Your task to perform on an android device: snooze an email in the gmail app Image 0: 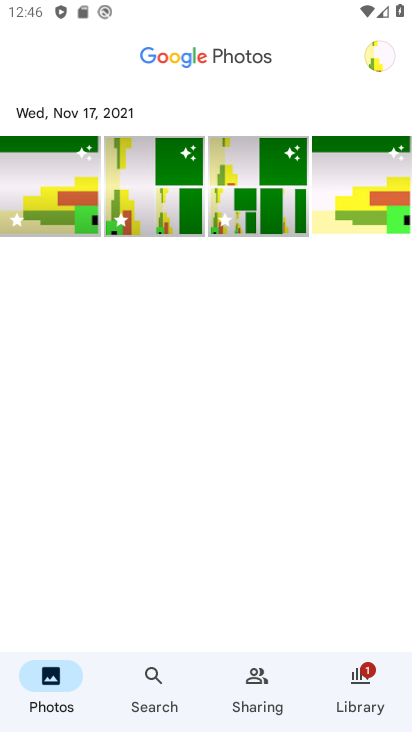
Step 0: press home button
Your task to perform on an android device: snooze an email in the gmail app Image 1: 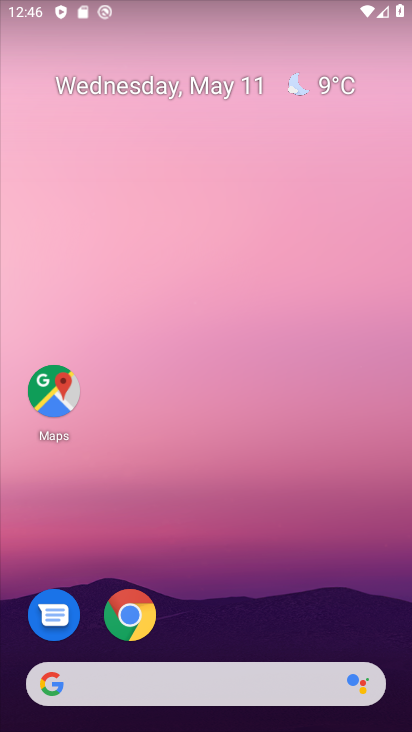
Step 1: drag from (265, 636) to (218, 240)
Your task to perform on an android device: snooze an email in the gmail app Image 2: 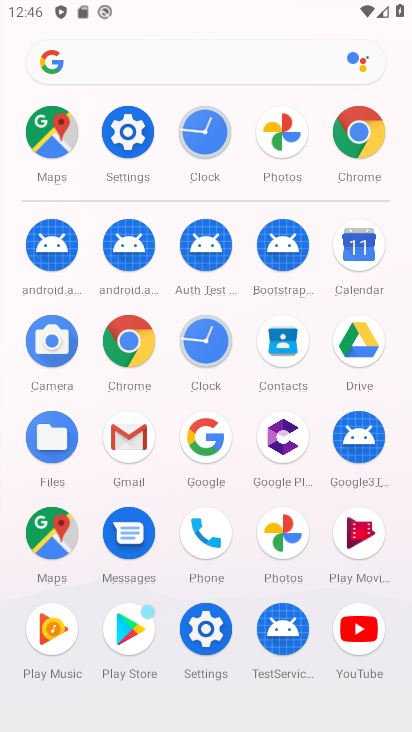
Step 2: click (143, 451)
Your task to perform on an android device: snooze an email in the gmail app Image 3: 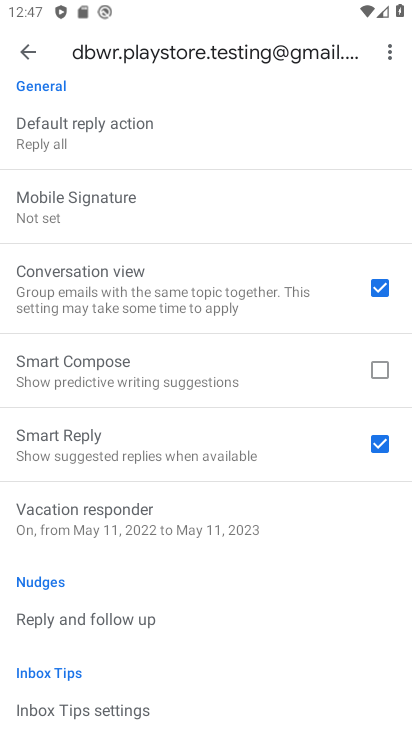
Step 3: click (22, 45)
Your task to perform on an android device: snooze an email in the gmail app Image 4: 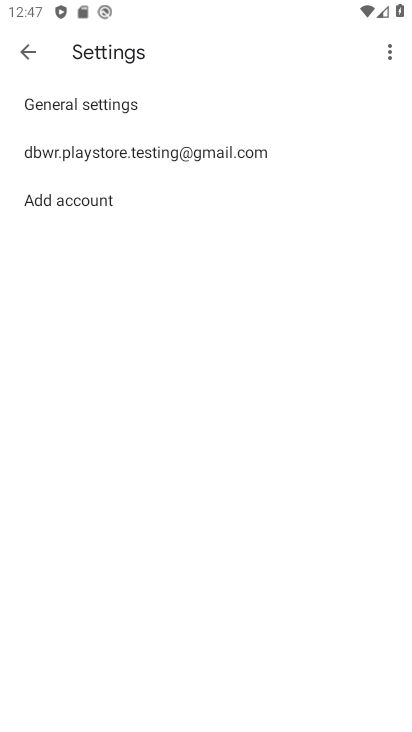
Step 4: click (22, 45)
Your task to perform on an android device: snooze an email in the gmail app Image 5: 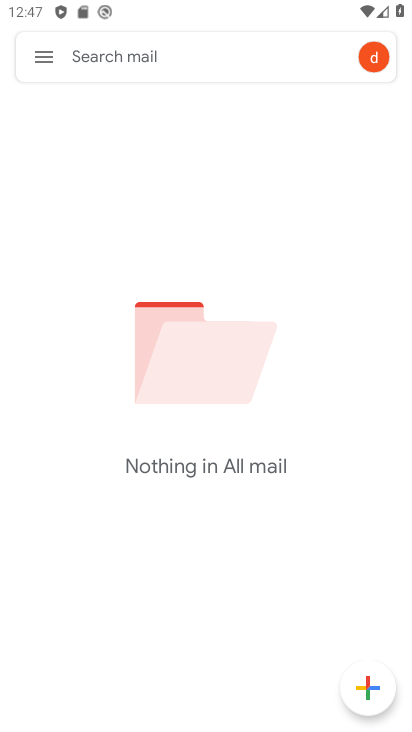
Step 5: click (46, 53)
Your task to perform on an android device: snooze an email in the gmail app Image 6: 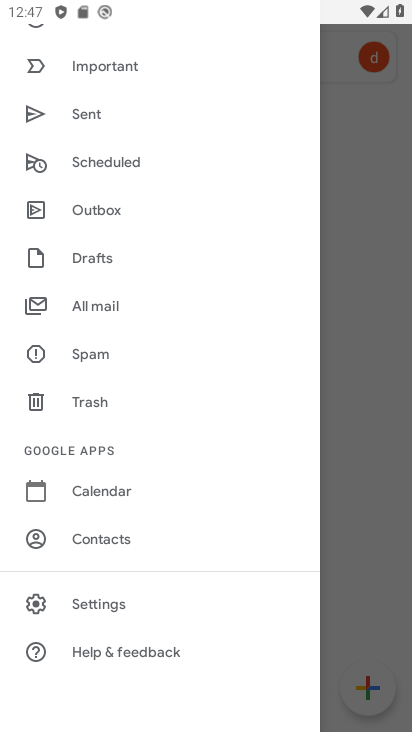
Step 6: drag from (105, 130) to (110, 334)
Your task to perform on an android device: snooze an email in the gmail app Image 7: 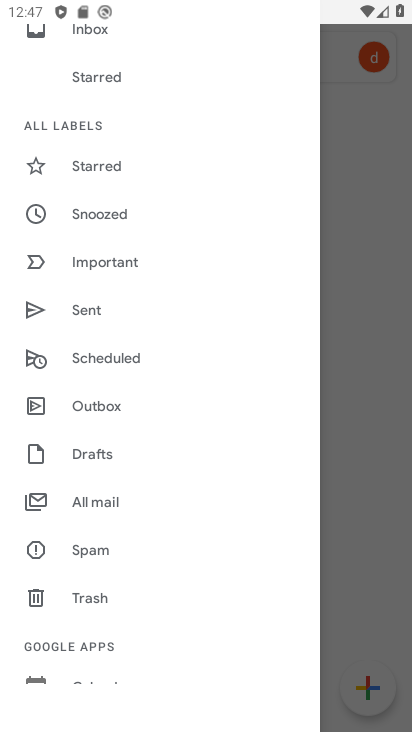
Step 7: click (102, 223)
Your task to perform on an android device: snooze an email in the gmail app Image 8: 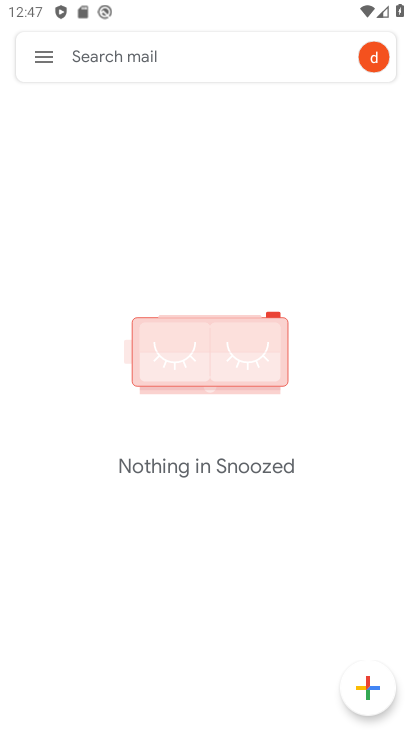
Step 8: task complete